Your task to perform on an android device: open a bookmark in the chrome app Image 0: 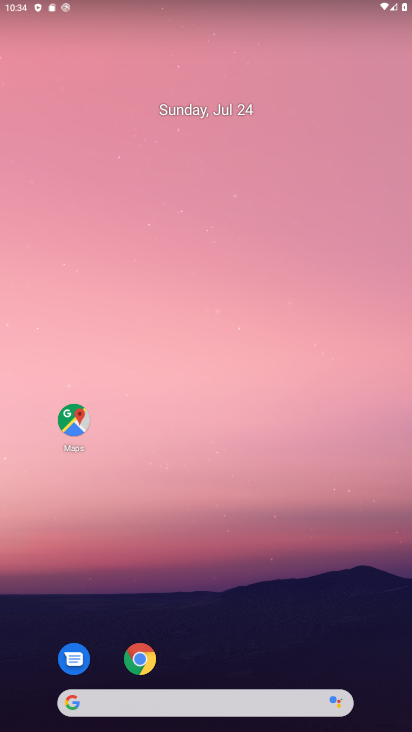
Step 0: click (141, 659)
Your task to perform on an android device: open a bookmark in the chrome app Image 1: 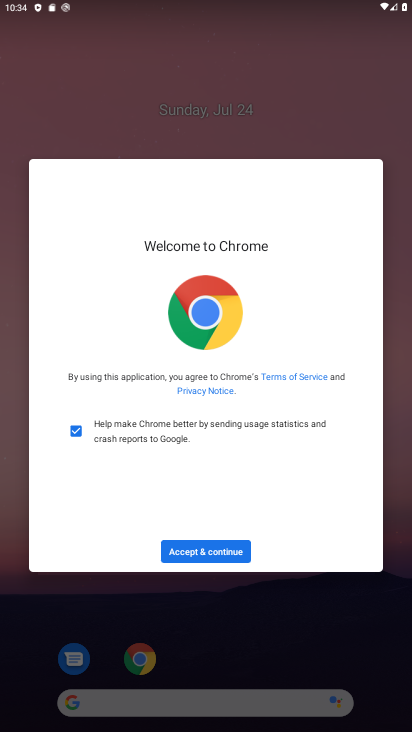
Step 1: click (201, 551)
Your task to perform on an android device: open a bookmark in the chrome app Image 2: 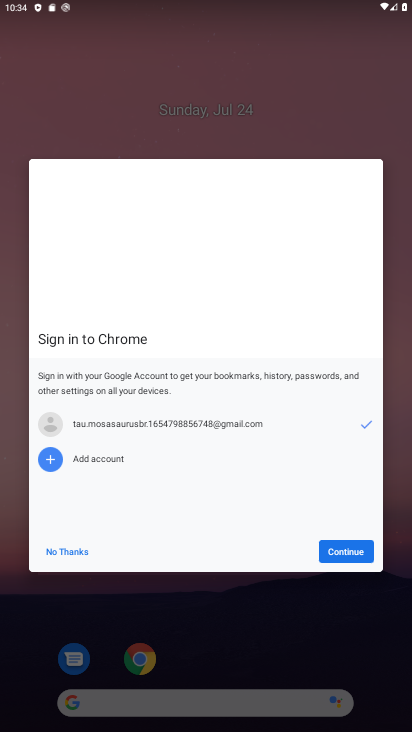
Step 2: click (352, 550)
Your task to perform on an android device: open a bookmark in the chrome app Image 3: 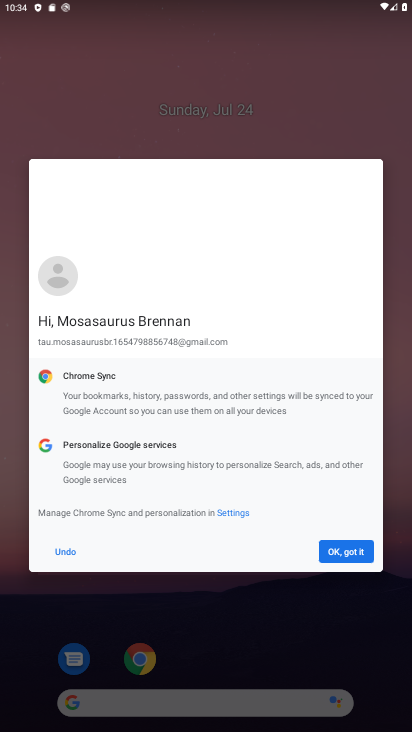
Step 3: click (352, 550)
Your task to perform on an android device: open a bookmark in the chrome app Image 4: 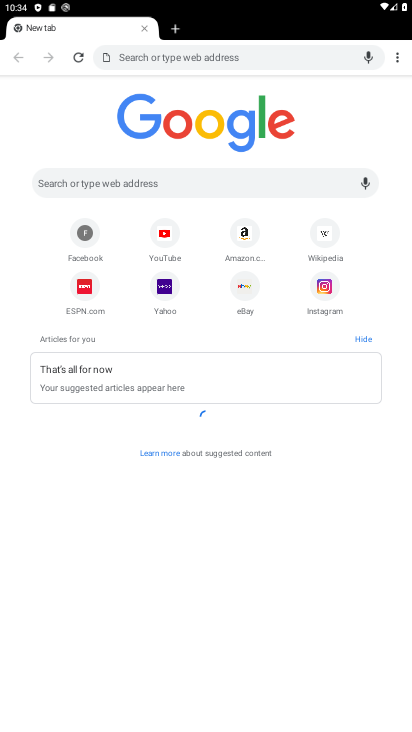
Step 4: click (400, 56)
Your task to perform on an android device: open a bookmark in the chrome app Image 5: 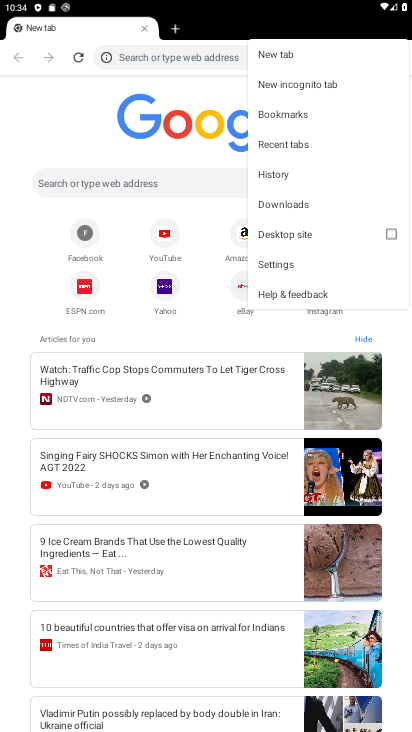
Step 5: click (304, 116)
Your task to perform on an android device: open a bookmark in the chrome app Image 6: 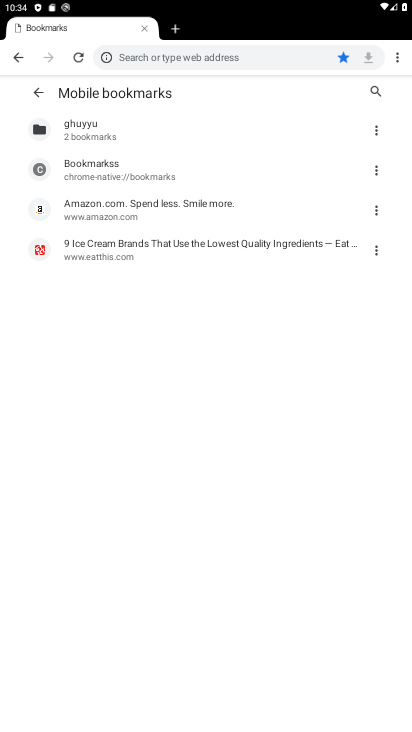
Step 6: task complete